Your task to perform on an android device: Show me popular games on the Play Store Image 0: 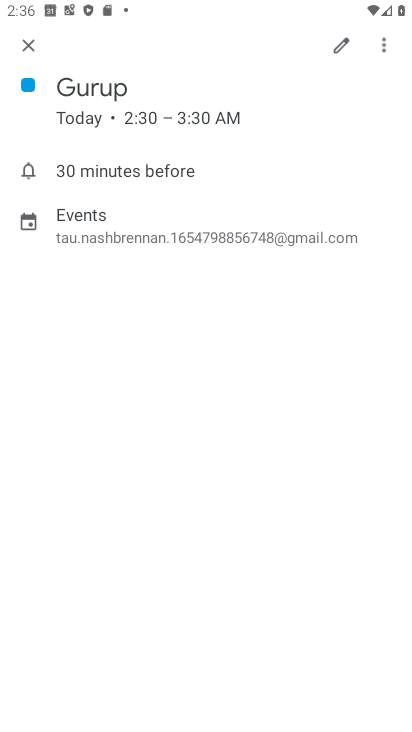
Step 0: press home button
Your task to perform on an android device: Show me popular games on the Play Store Image 1: 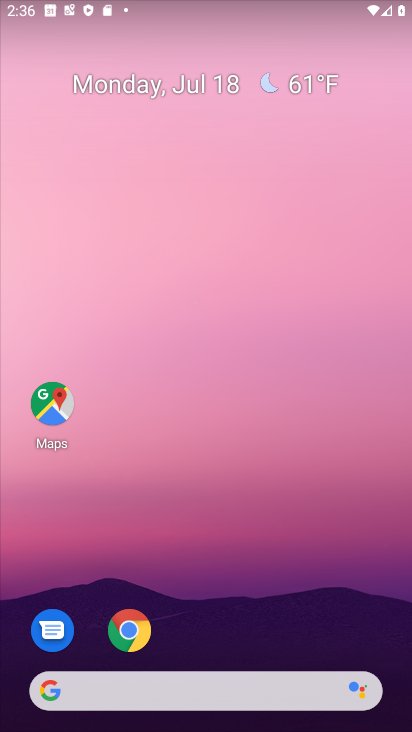
Step 1: drag from (231, 657) to (235, 47)
Your task to perform on an android device: Show me popular games on the Play Store Image 2: 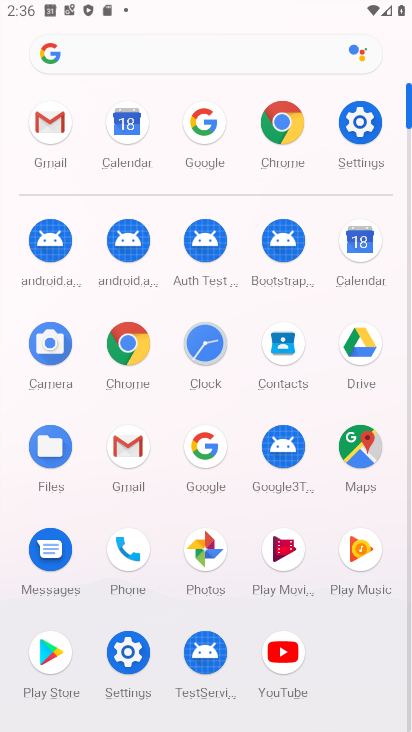
Step 2: drag from (238, 500) to (231, 302)
Your task to perform on an android device: Show me popular games on the Play Store Image 3: 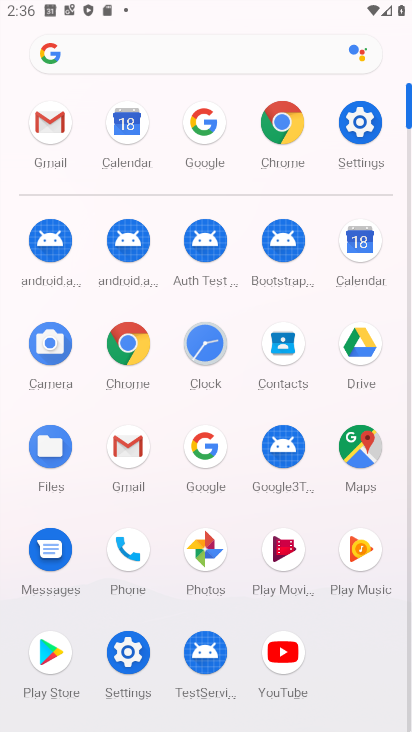
Step 3: click (48, 638)
Your task to perform on an android device: Show me popular games on the Play Store Image 4: 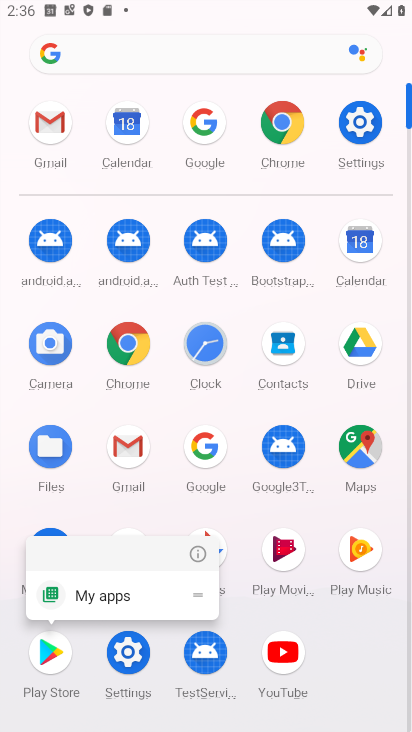
Step 4: click (49, 637)
Your task to perform on an android device: Show me popular games on the Play Store Image 5: 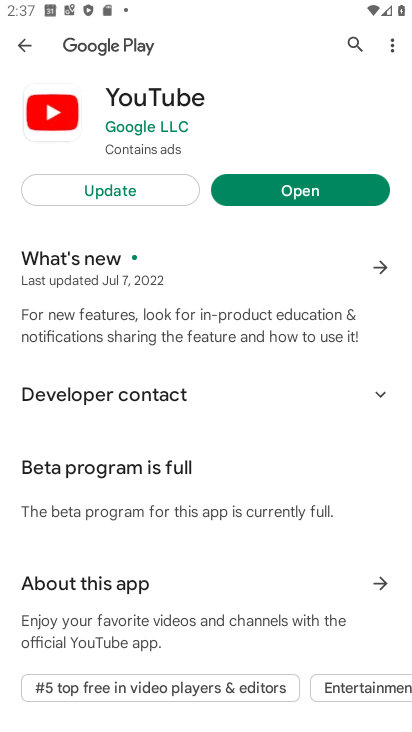
Step 5: click (27, 39)
Your task to perform on an android device: Show me popular games on the Play Store Image 6: 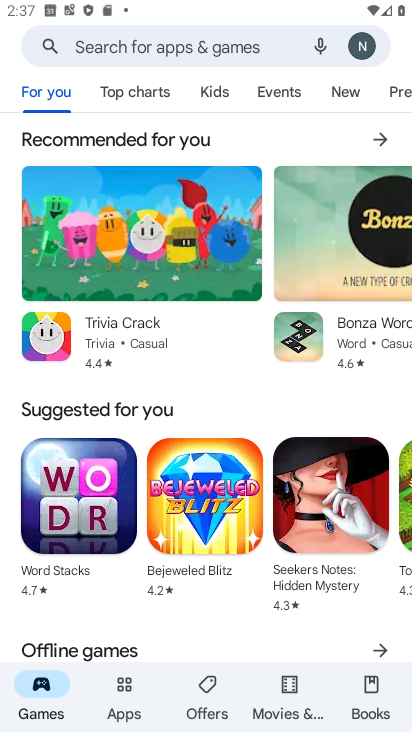
Step 6: drag from (312, 530) to (294, 168)
Your task to perform on an android device: Show me popular games on the Play Store Image 7: 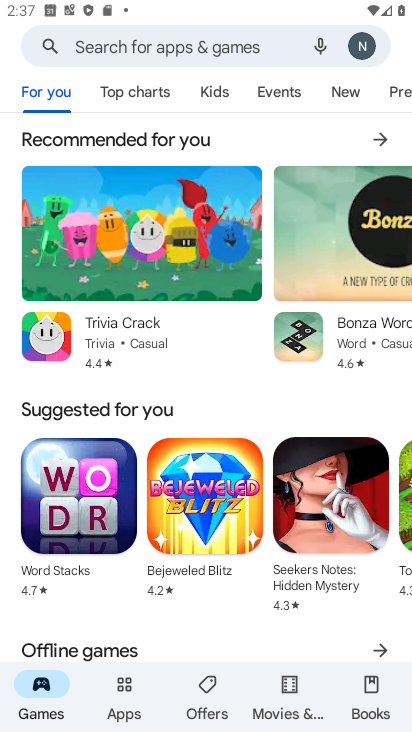
Step 7: drag from (231, 426) to (279, 3)
Your task to perform on an android device: Show me popular games on the Play Store Image 8: 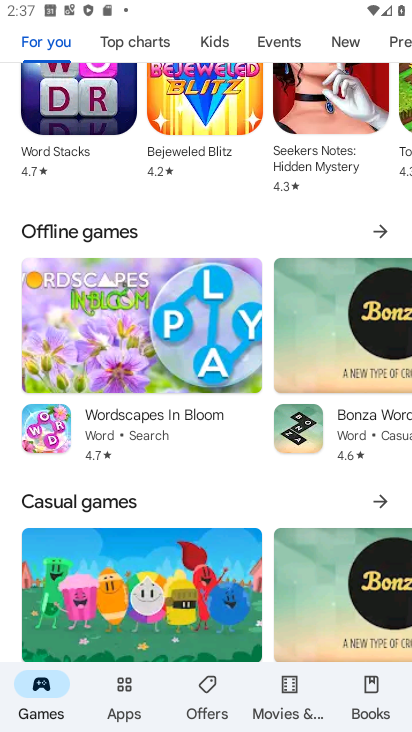
Step 8: drag from (267, 462) to (274, 138)
Your task to perform on an android device: Show me popular games on the Play Store Image 9: 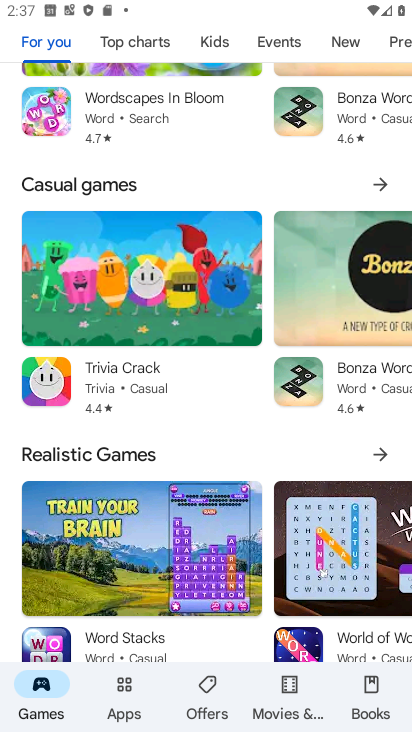
Step 9: drag from (246, 168) to (213, 552)
Your task to perform on an android device: Show me popular games on the Play Store Image 10: 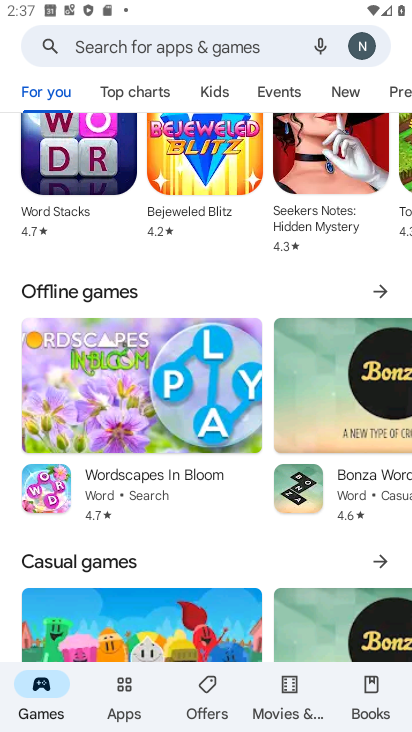
Step 10: drag from (212, 184) to (230, 621)
Your task to perform on an android device: Show me popular games on the Play Store Image 11: 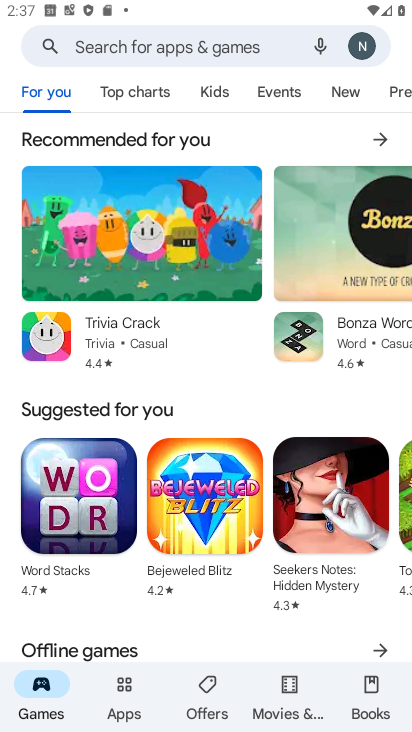
Step 11: drag from (316, 193) to (320, 374)
Your task to perform on an android device: Show me popular games on the Play Store Image 12: 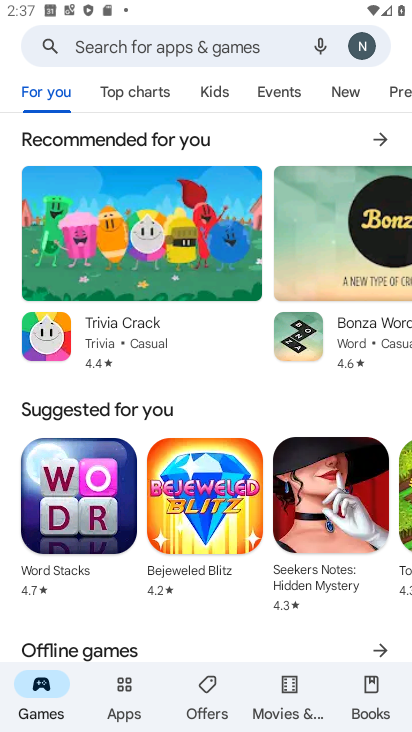
Step 12: click (279, 40)
Your task to perform on an android device: Show me popular games on the Play Store Image 13: 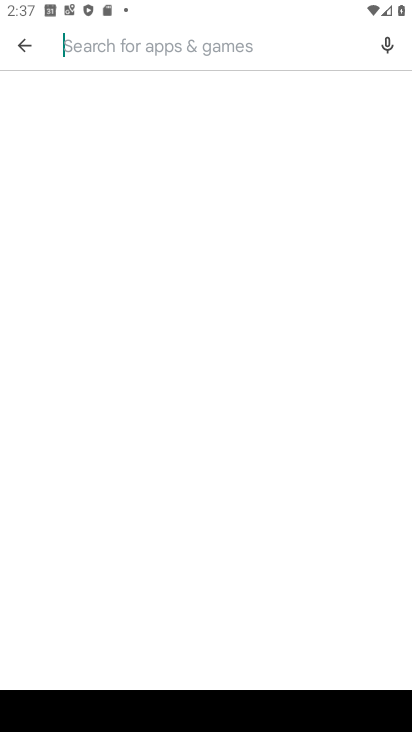
Step 13: type "popular games"
Your task to perform on an android device: Show me popular games on the Play Store Image 14: 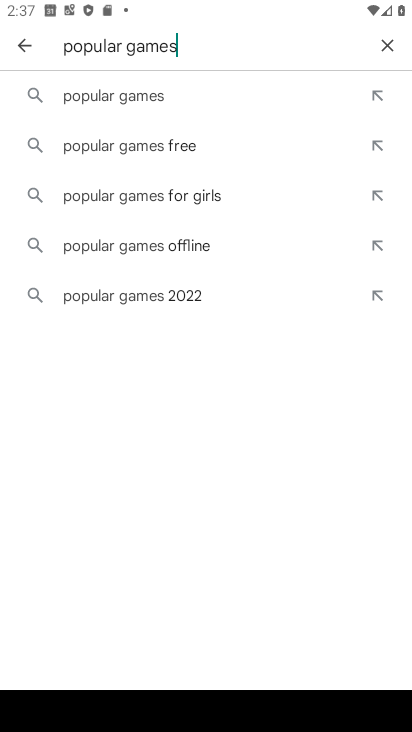
Step 14: click (155, 97)
Your task to perform on an android device: Show me popular games on the Play Store Image 15: 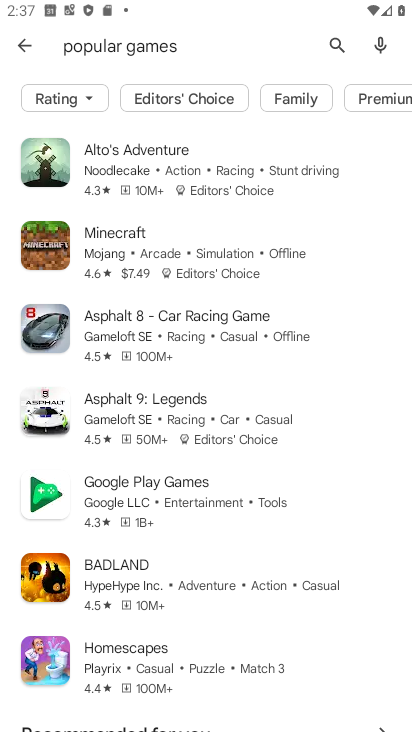
Step 15: task complete